Your task to perform on an android device: turn off smart reply in the gmail app Image 0: 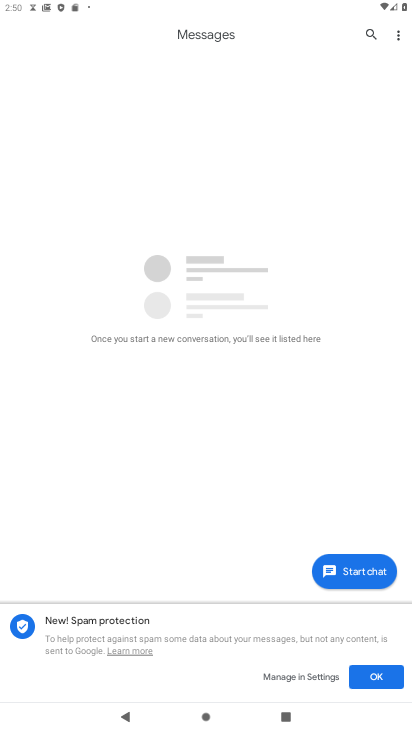
Step 0: press home button
Your task to perform on an android device: turn off smart reply in the gmail app Image 1: 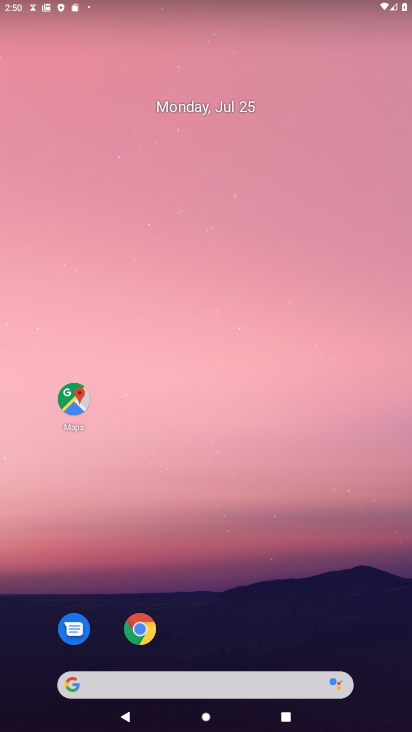
Step 1: drag from (246, 654) to (161, 114)
Your task to perform on an android device: turn off smart reply in the gmail app Image 2: 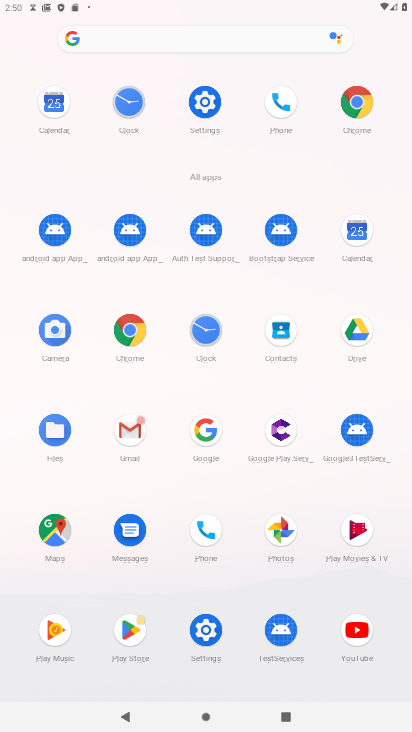
Step 2: click (133, 435)
Your task to perform on an android device: turn off smart reply in the gmail app Image 3: 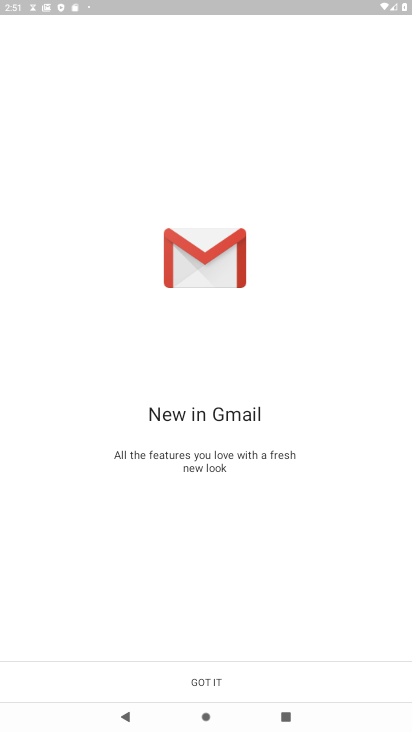
Step 3: click (227, 681)
Your task to perform on an android device: turn off smart reply in the gmail app Image 4: 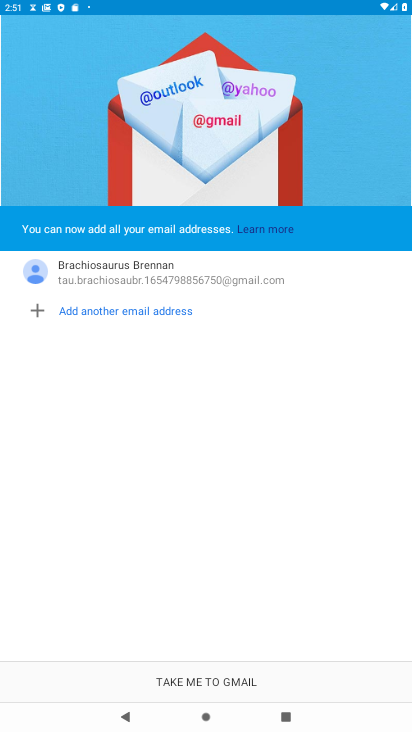
Step 4: click (221, 689)
Your task to perform on an android device: turn off smart reply in the gmail app Image 5: 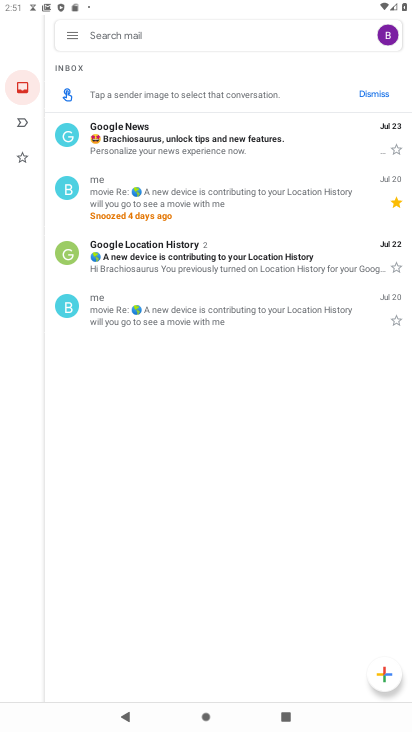
Step 5: click (79, 33)
Your task to perform on an android device: turn off smart reply in the gmail app Image 6: 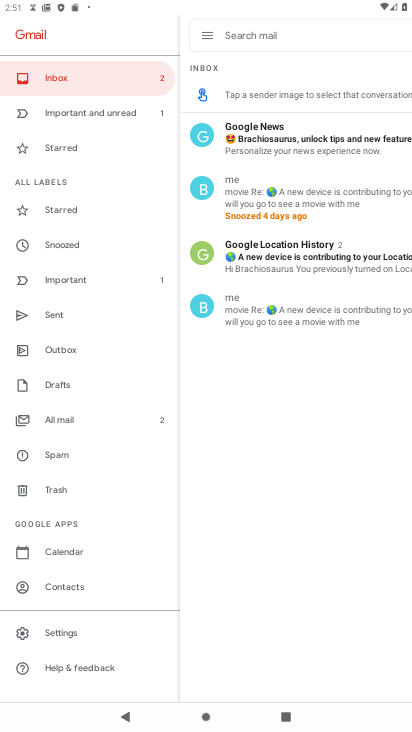
Step 6: click (100, 620)
Your task to perform on an android device: turn off smart reply in the gmail app Image 7: 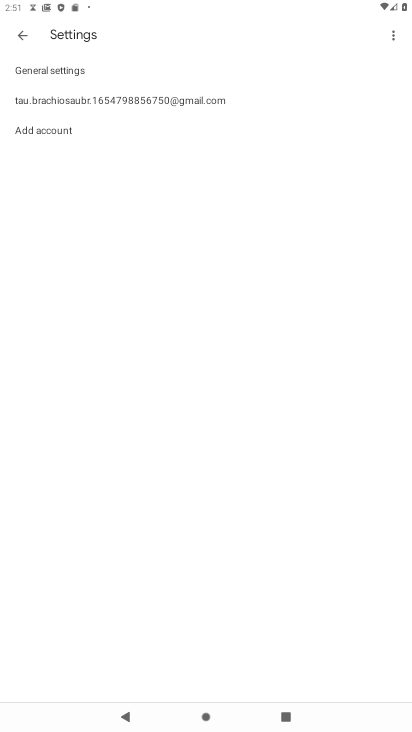
Step 7: click (236, 95)
Your task to perform on an android device: turn off smart reply in the gmail app Image 8: 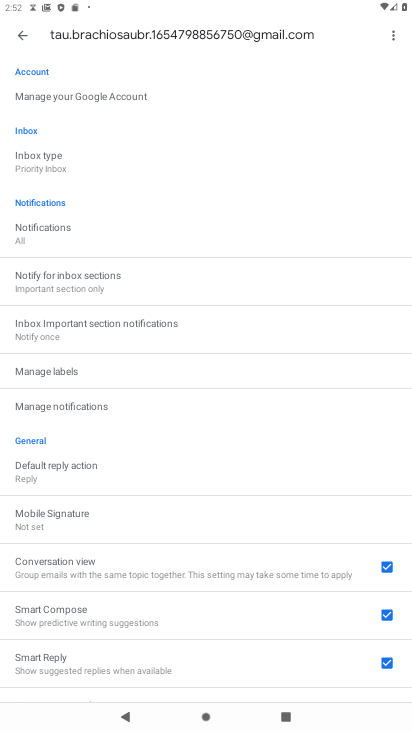
Step 8: drag from (156, 609) to (145, 206)
Your task to perform on an android device: turn off smart reply in the gmail app Image 9: 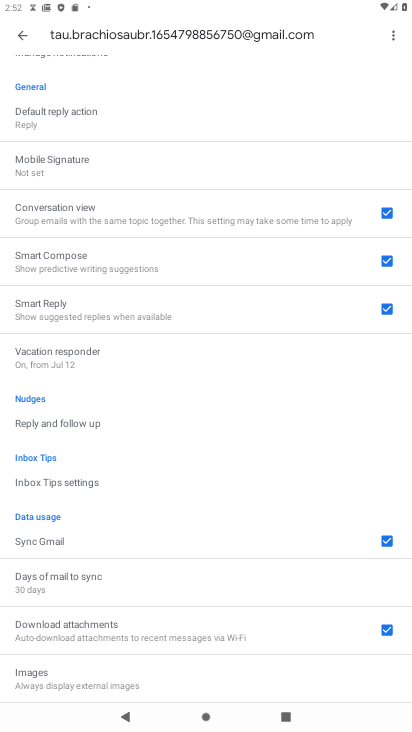
Step 9: click (374, 307)
Your task to perform on an android device: turn off smart reply in the gmail app Image 10: 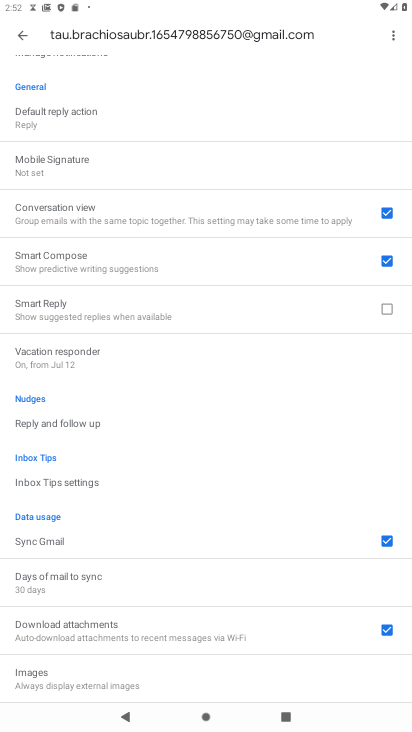
Step 10: task complete